Your task to perform on an android device: install app "YouTube Kids" Image 0: 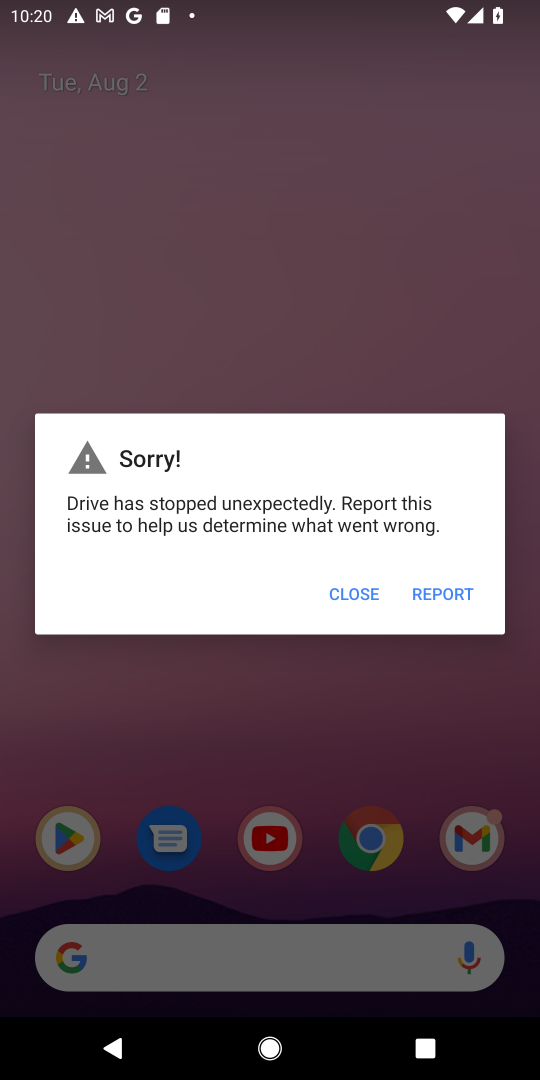
Step 0: press home button
Your task to perform on an android device: install app "YouTube Kids" Image 1: 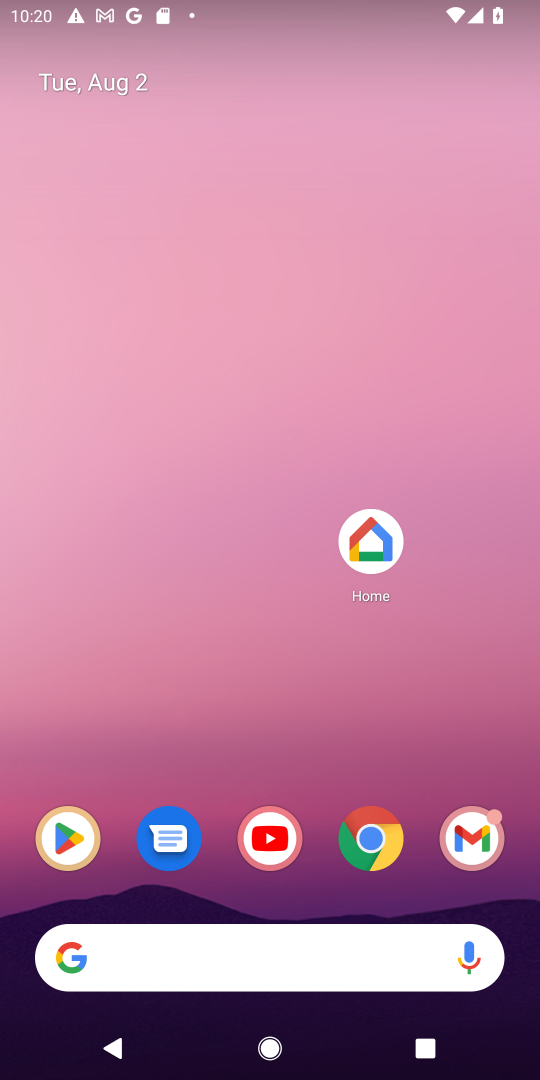
Step 1: drag from (220, 560) to (282, 80)
Your task to perform on an android device: install app "YouTube Kids" Image 2: 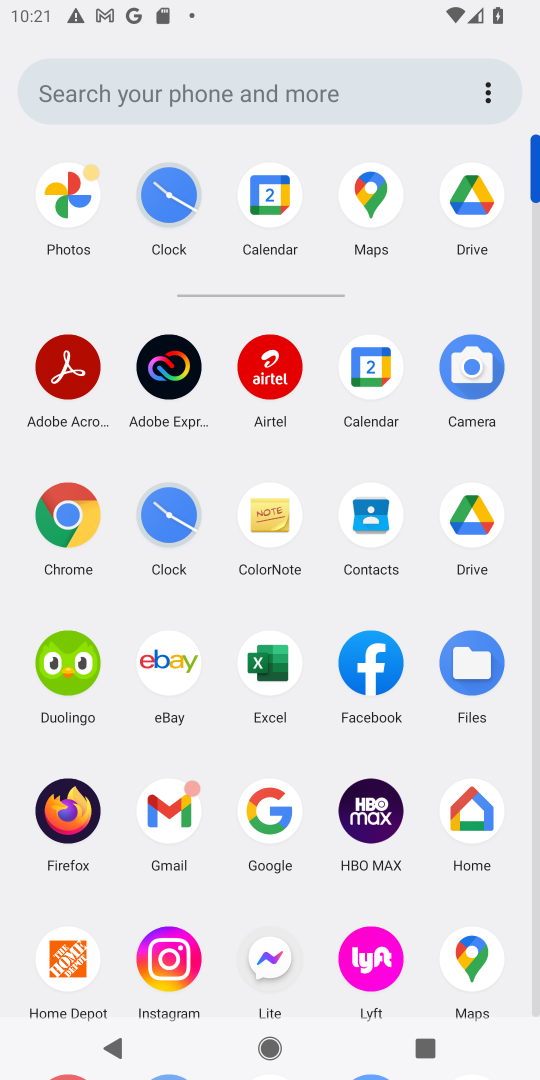
Step 2: drag from (314, 869) to (325, 506)
Your task to perform on an android device: install app "YouTube Kids" Image 3: 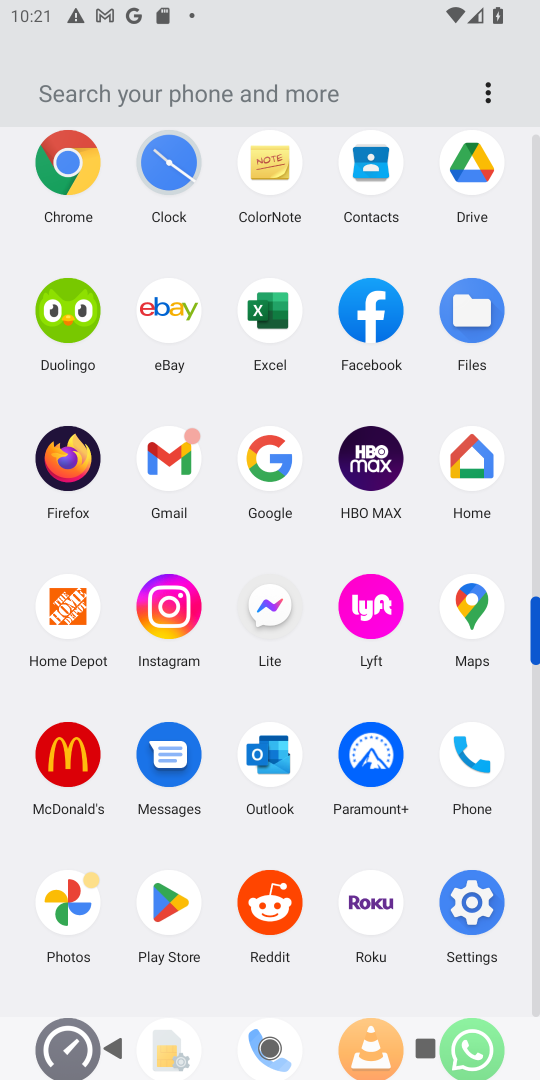
Step 3: click (158, 912)
Your task to perform on an android device: install app "YouTube Kids" Image 4: 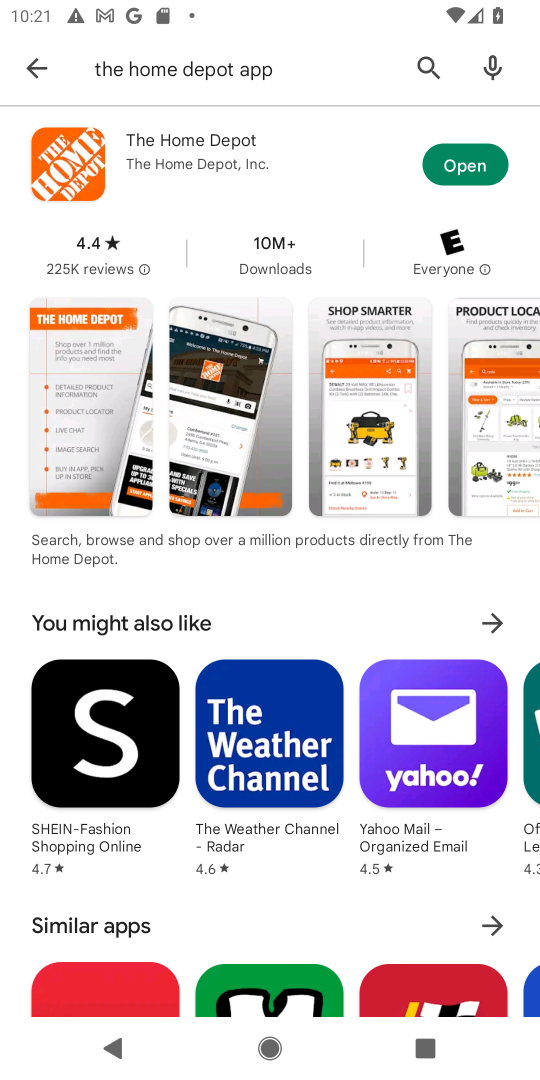
Step 4: click (418, 58)
Your task to perform on an android device: install app "YouTube Kids" Image 5: 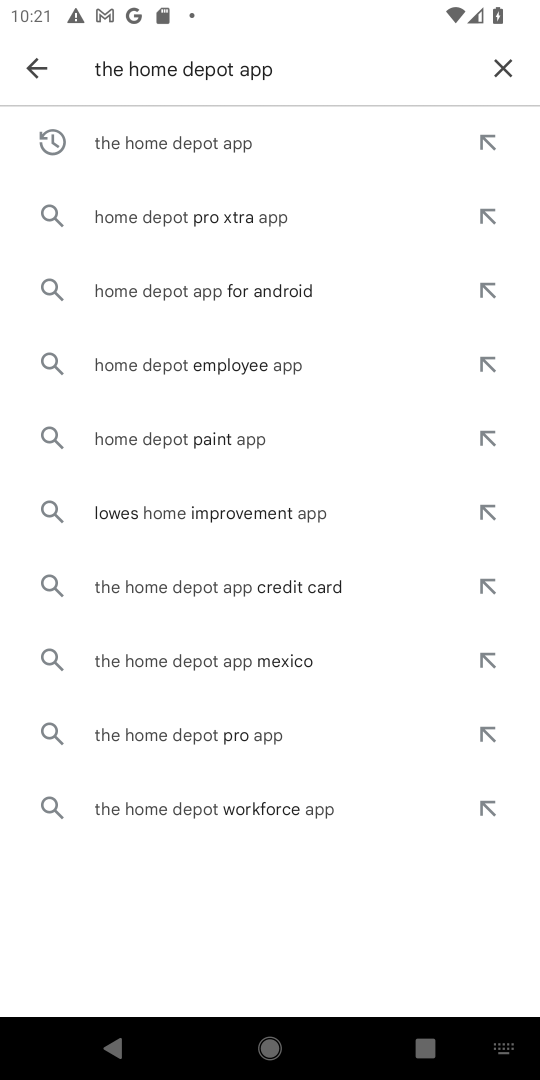
Step 5: click (503, 57)
Your task to perform on an android device: install app "YouTube Kids" Image 6: 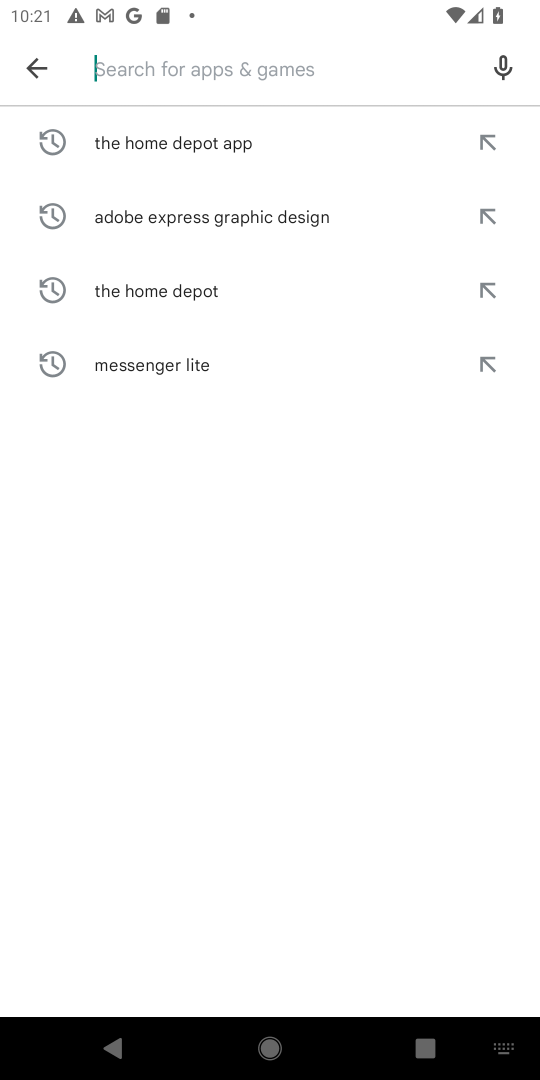
Step 6: click (393, 79)
Your task to perform on an android device: install app "YouTube Kids" Image 7: 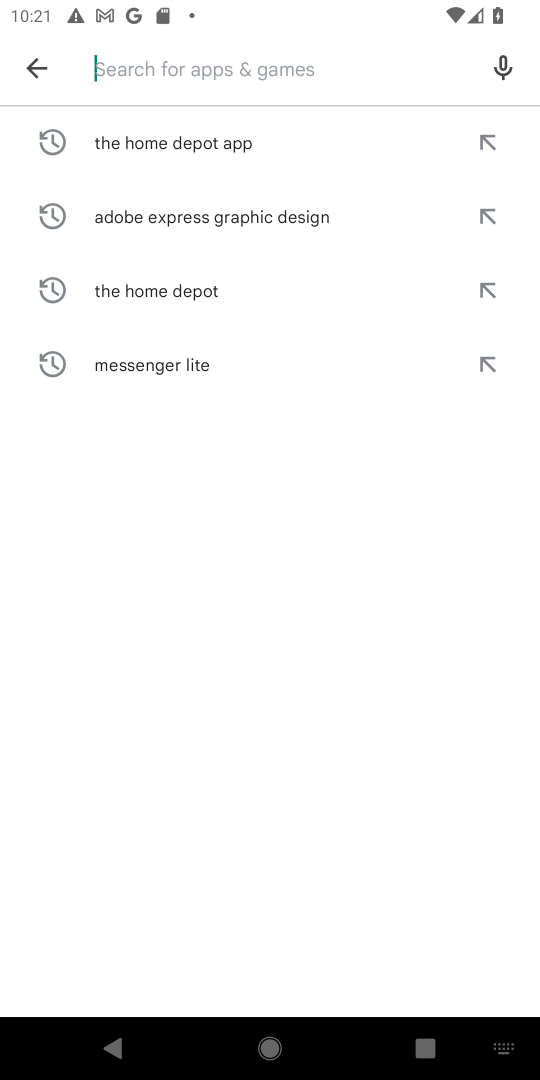
Step 7: type "youtube kids"
Your task to perform on an android device: install app "YouTube Kids" Image 8: 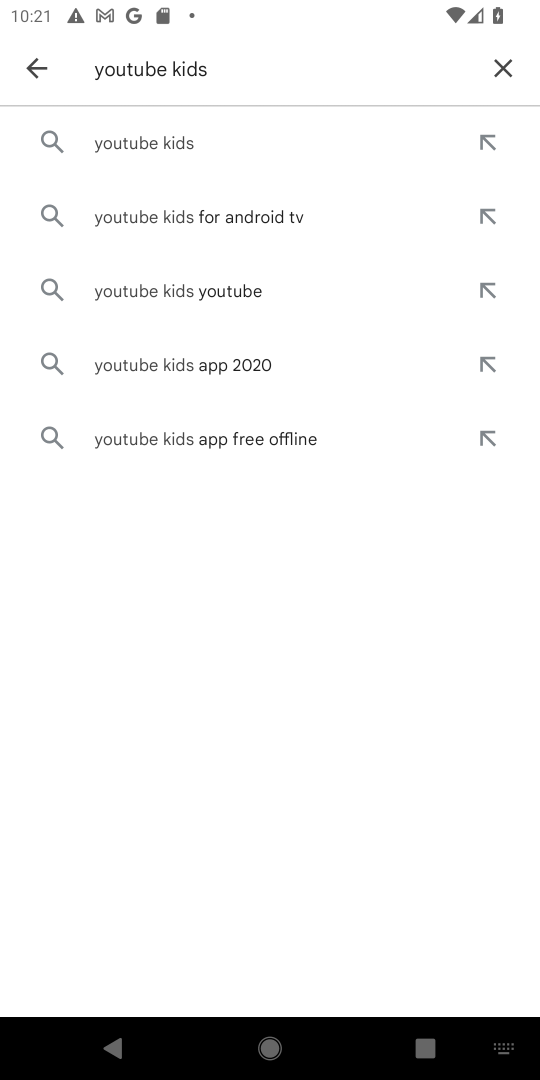
Step 8: click (261, 149)
Your task to perform on an android device: install app "YouTube Kids" Image 9: 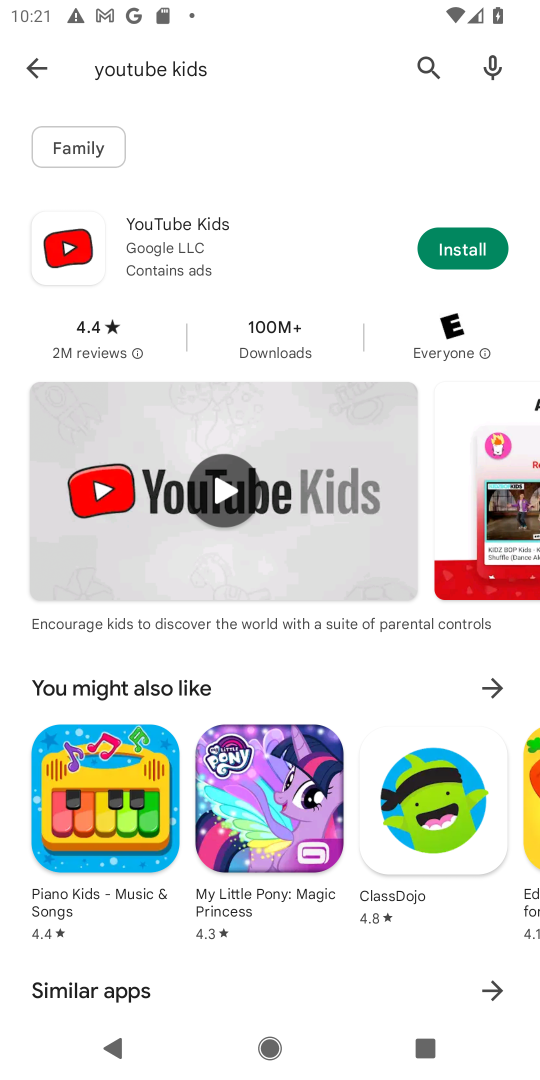
Step 9: click (473, 242)
Your task to perform on an android device: install app "YouTube Kids" Image 10: 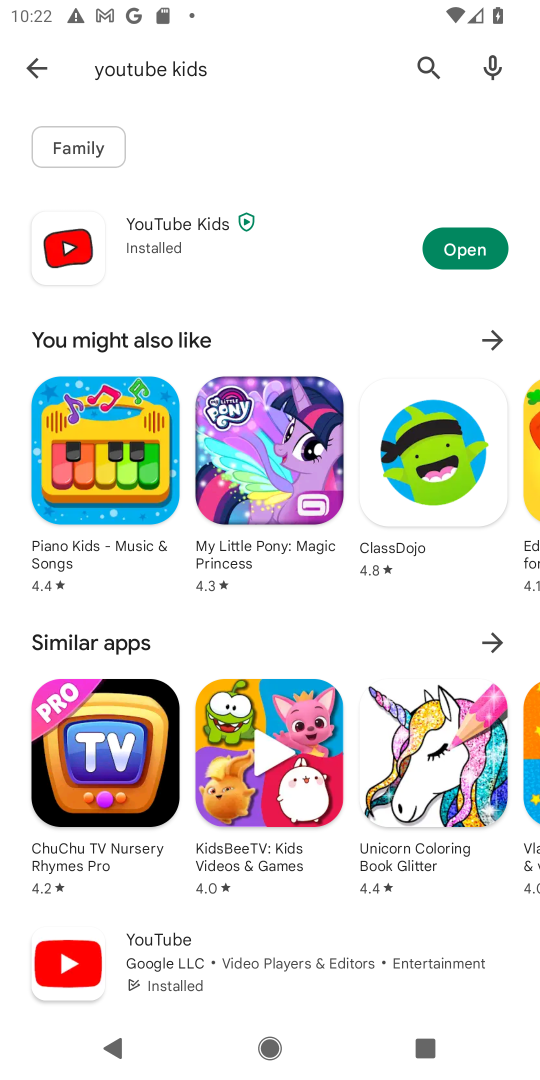
Step 10: task complete